Your task to perform on an android device: open app "Pinterest" (install if not already installed), go to login, and select forgot password Image 0: 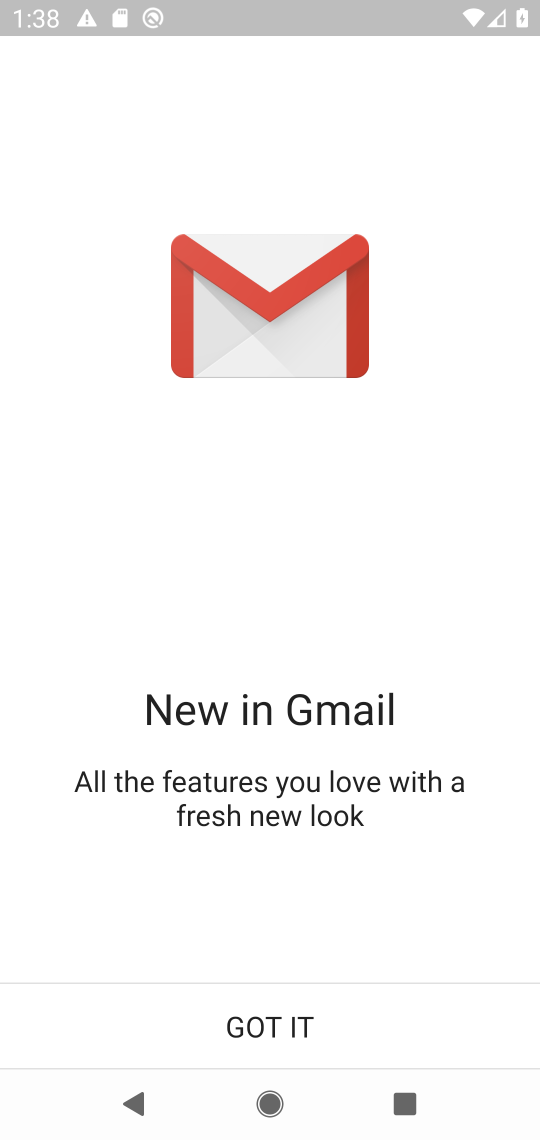
Step 0: press back button
Your task to perform on an android device: open app "Pinterest" (install if not already installed), go to login, and select forgot password Image 1: 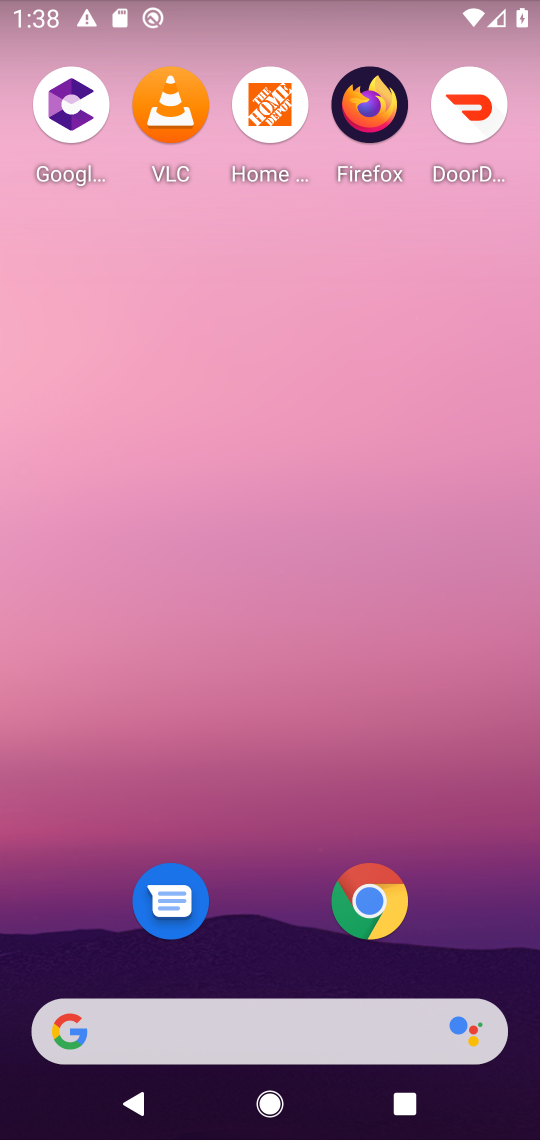
Step 1: drag from (287, 793) to (305, 214)
Your task to perform on an android device: open app "Pinterest" (install if not already installed), go to login, and select forgot password Image 2: 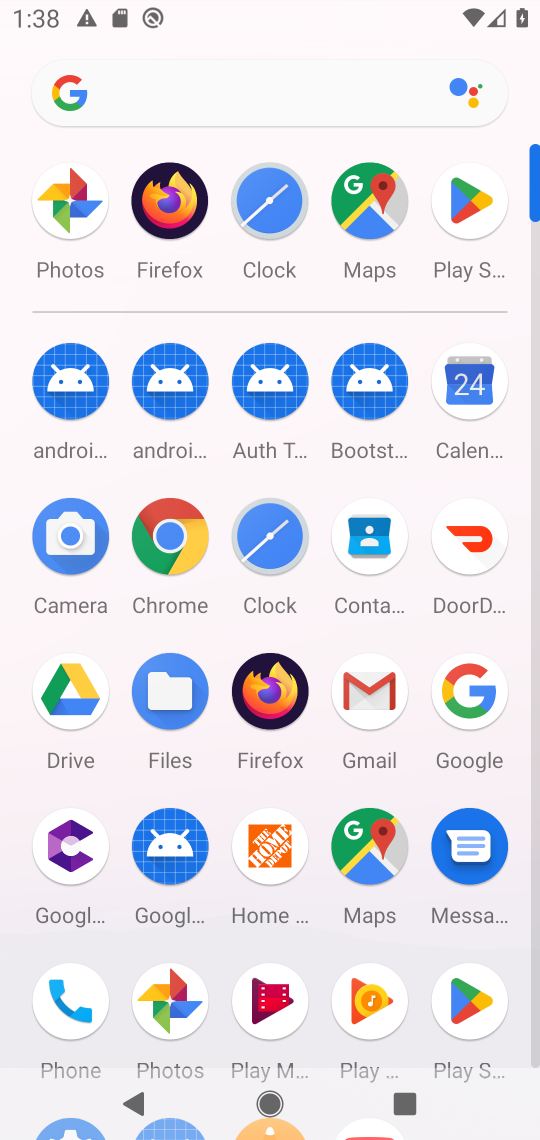
Step 2: click (476, 212)
Your task to perform on an android device: open app "Pinterest" (install if not already installed), go to login, and select forgot password Image 3: 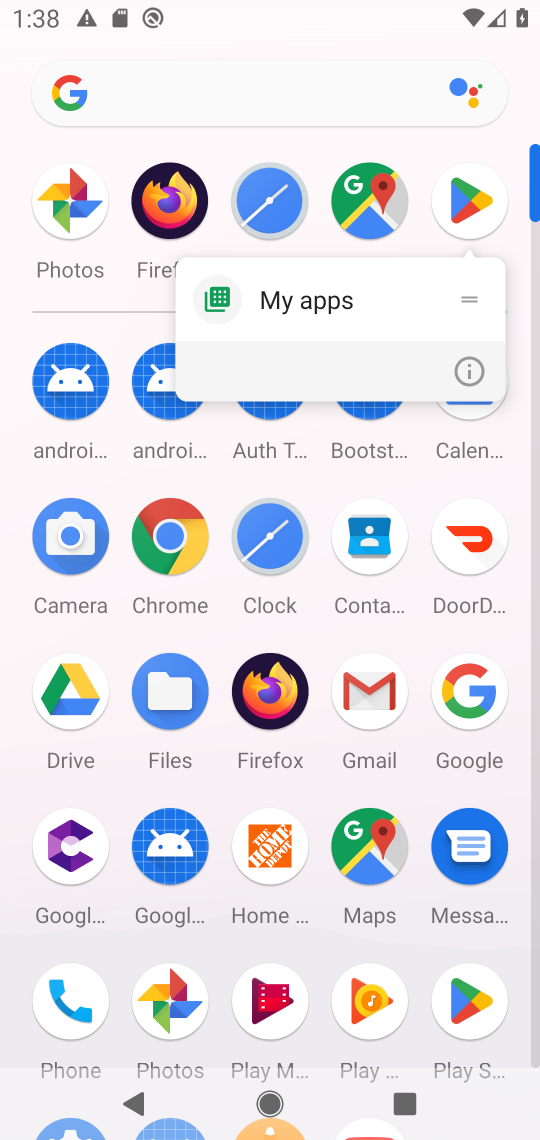
Step 3: click (443, 180)
Your task to perform on an android device: open app "Pinterest" (install if not already installed), go to login, and select forgot password Image 4: 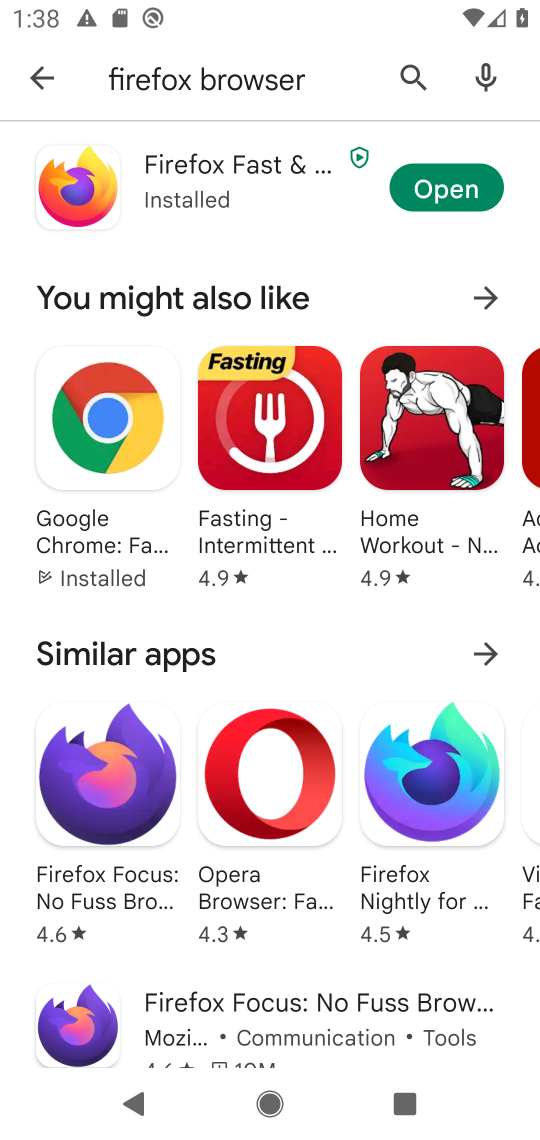
Step 4: click (419, 80)
Your task to perform on an android device: open app "Pinterest" (install if not already installed), go to login, and select forgot password Image 5: 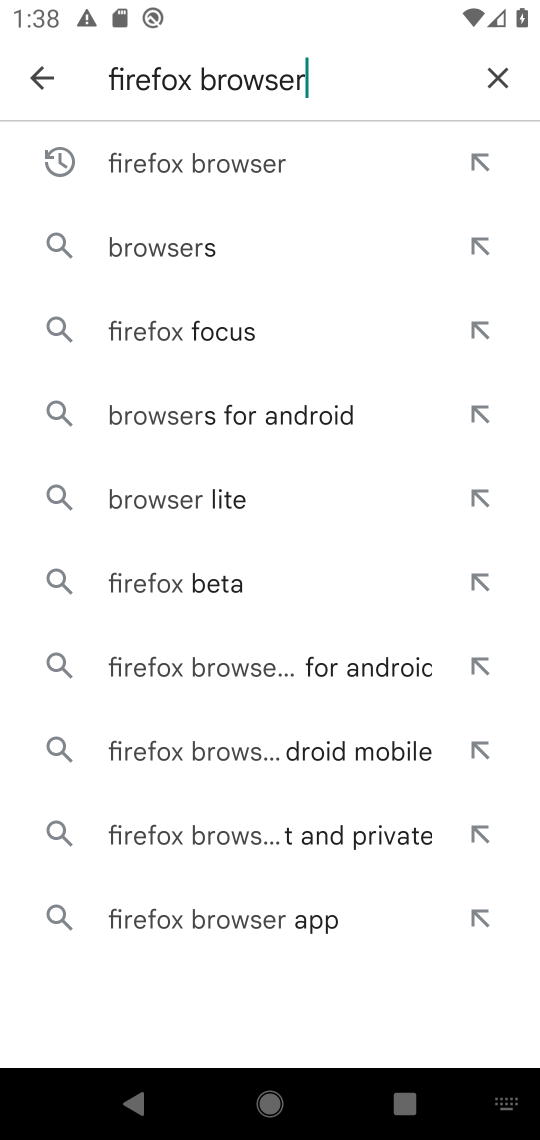
Step 5: click (494, 80)
Your task to perform on an android device: open app "Pinterest" (install if not already installed), go to login, and select forgot password Image 6: 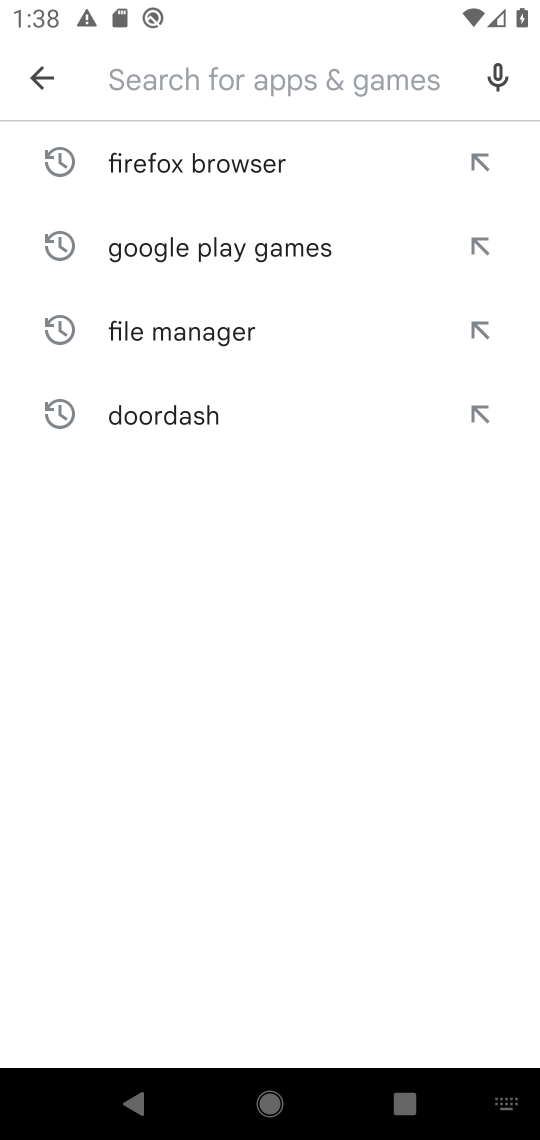
Step 6: click (128, 72)
Your task to perform on an android device: open app "Pinterest" (install if not already installed), go to login, and select forgot password Image 7: 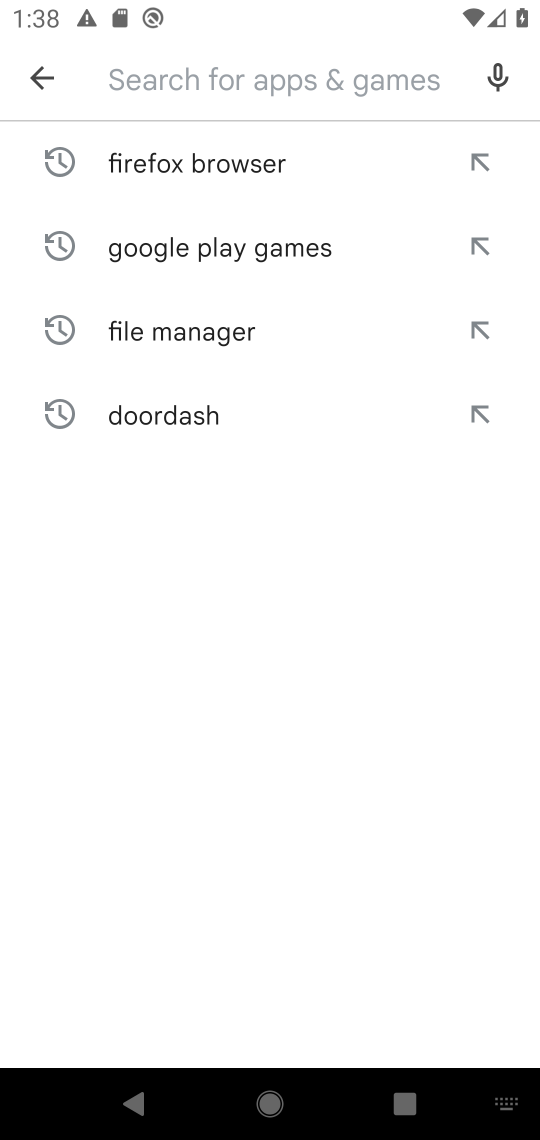
Step 7: type "Pinterest"
Your task to perform on an android device: open app "Pinterest" (install if not already installed), go to login, and select forgot password Image 8: 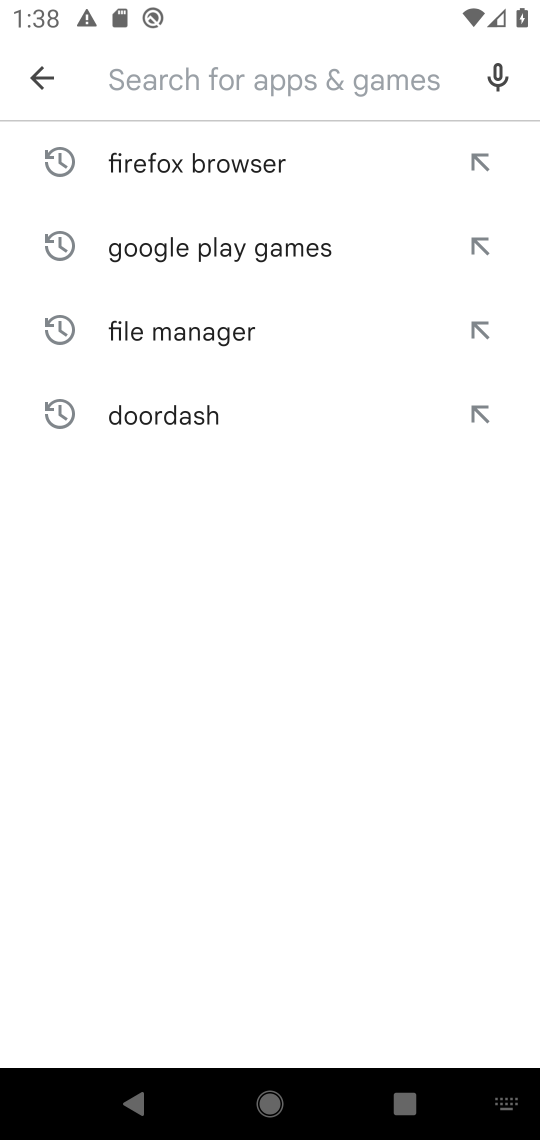
Step 8: click (208, 721)
Your task to perform on an android device: open app "Pinterest" (install if not already installed), go to login, and select forgot password Image 9: 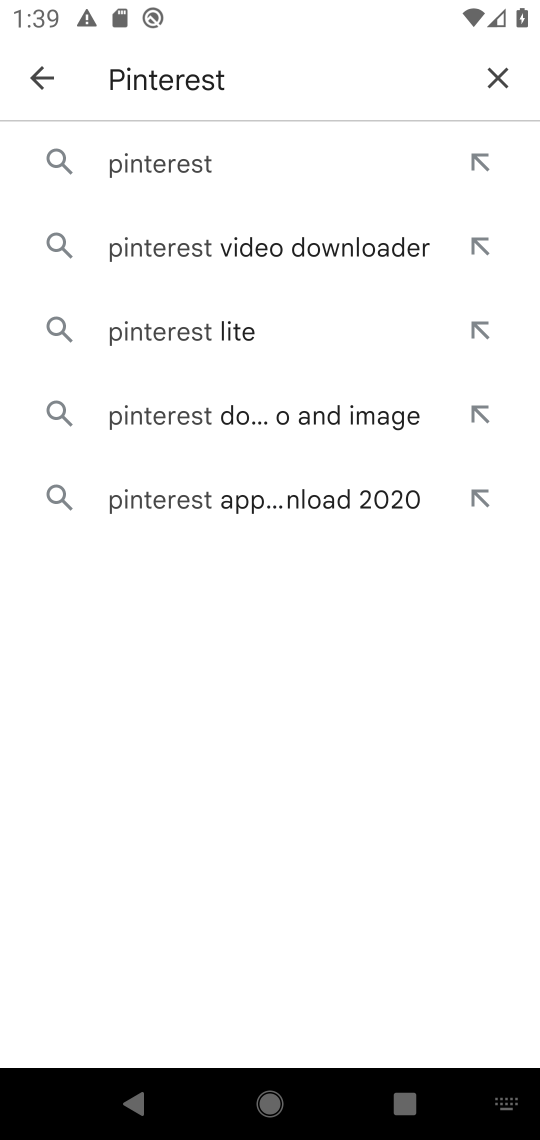
Step 9: click (131, 174)
Your task to perform on an android device: open app "Pinterest" (install if not already installed), go to login, and select forgot password Image 10: 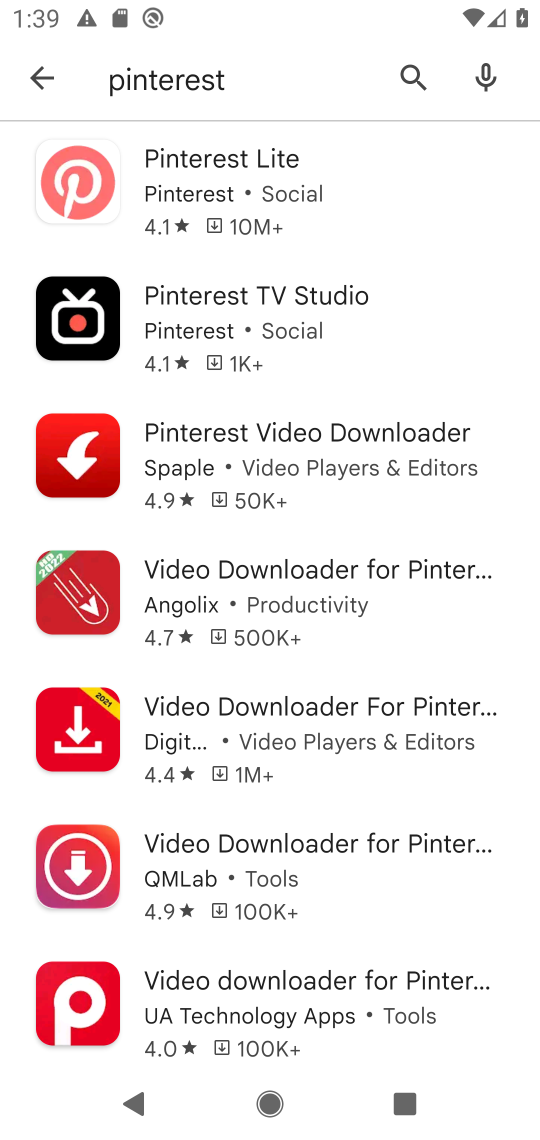
Step 10: click (251, 171)
Your task to perform on an android device: open app "Pinterest" (install if not already installed), go to login, and select forgot password Image 11: 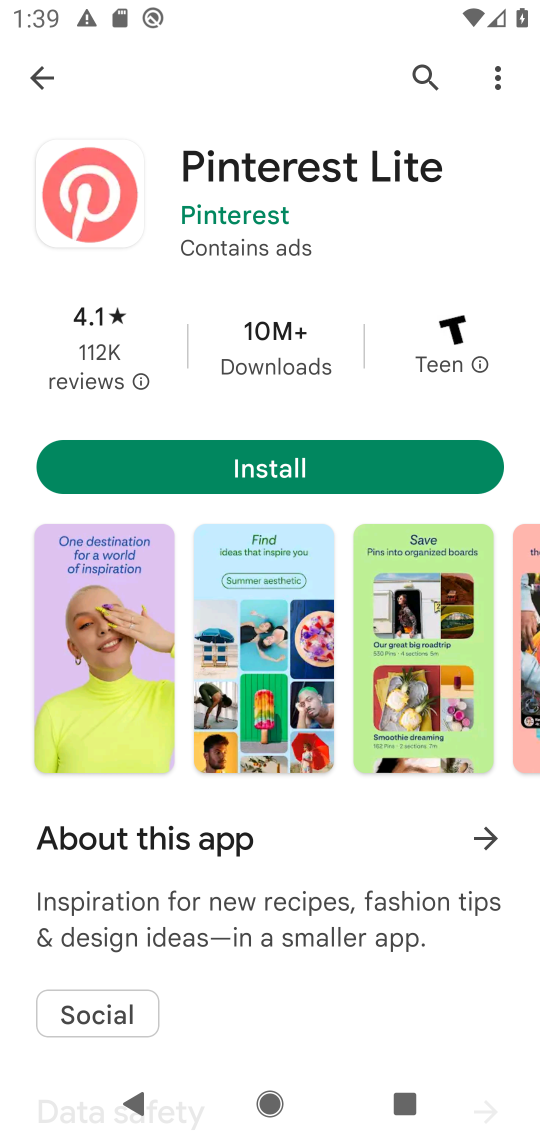
Step 11: task complete